Your task to perform on an android device: Is it going to rain today? Image 0: 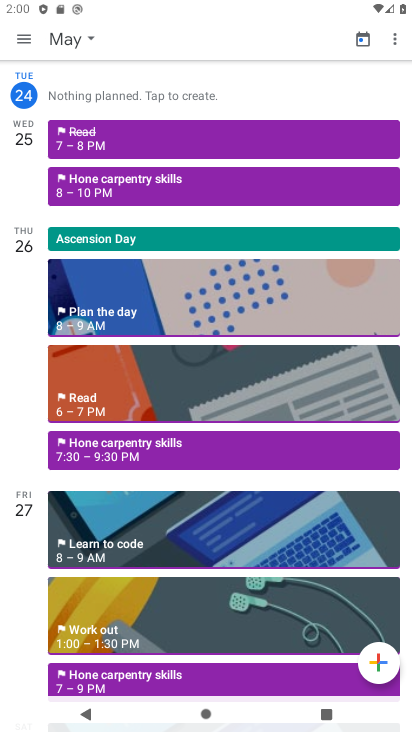
Step 0: press back button
Your task to perform on an android device: Is it going to rain today? Image 1: 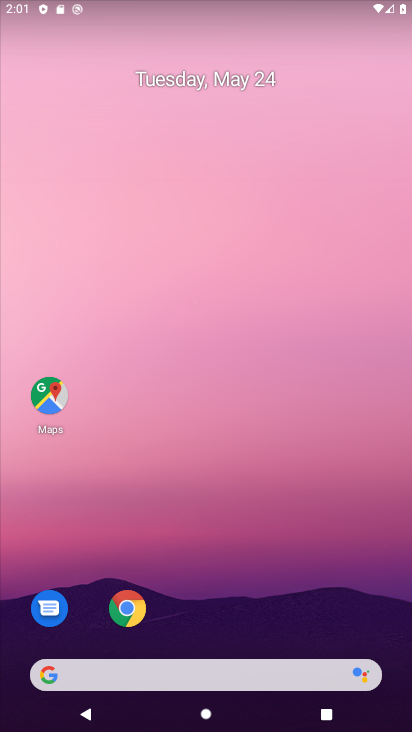
Step 1: drag from (293, 579) to (289, 92)
Your task to perform on an android device: Is it going to rain today? Image 2: 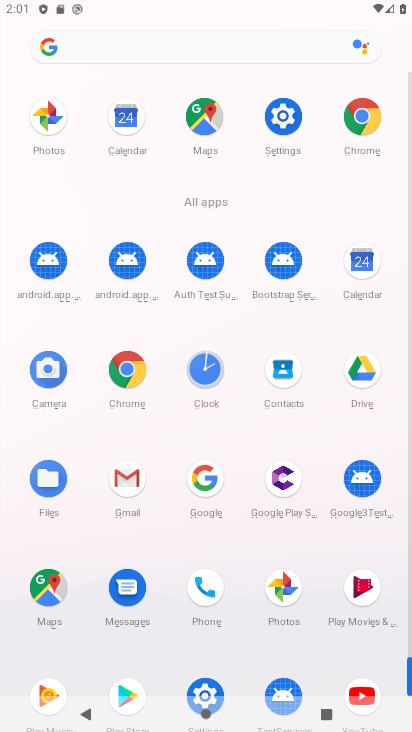
Step 2: drag from (5, 614) to (20, 234)
Your task to perform on an android device: Is it going to rain today? Image 3: 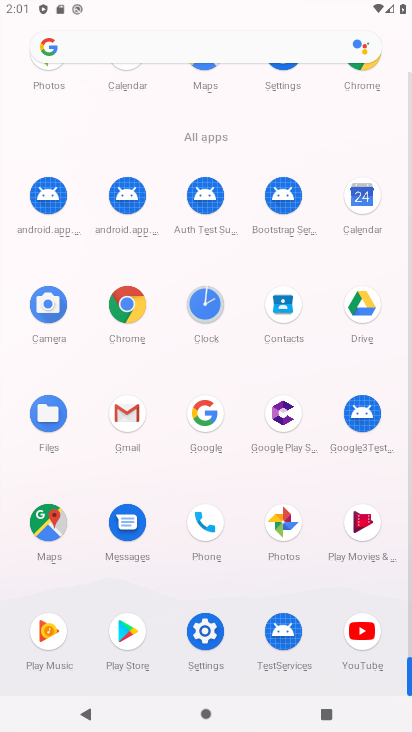
Step 3: drag from (12, 495) to (12, 289)
Your task to perform on an android device: Is it going to rain today? Image 4: 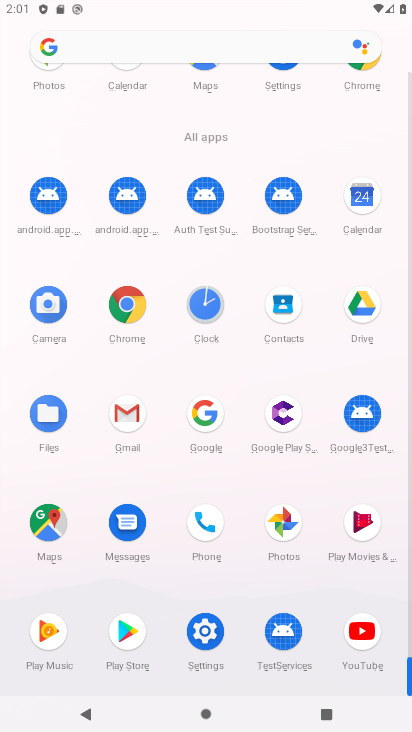
Step 4: click (124, 307)
Your task to perform on an android device: Is it going to rain today? Image 5: 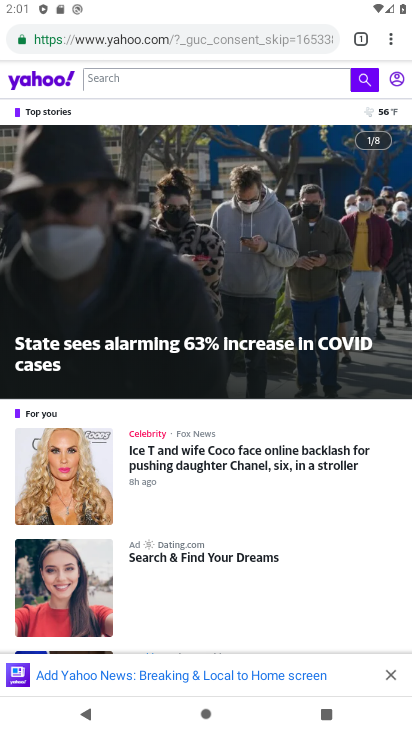
Step 5: click (176, 40)
Your task to perform on an android device: Is it going to rain today? Image 6: 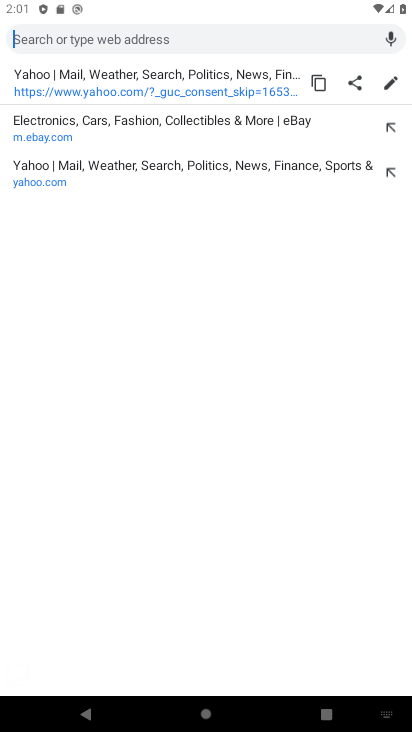
Step 6: type "Is it going to rain today?"
Your task to perform on an android device: Is it going to rain today? Image 7: 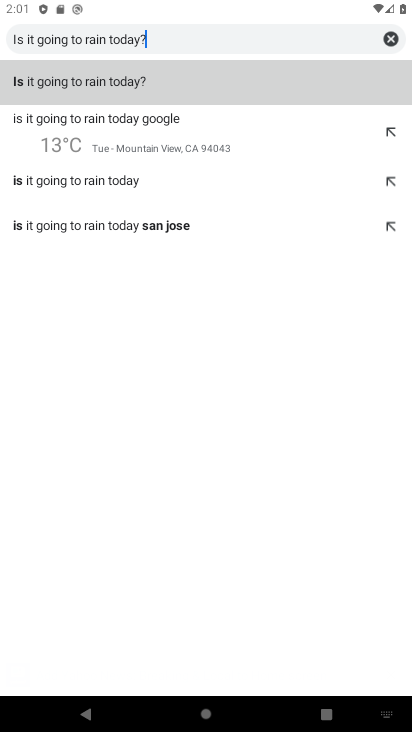
Step 7: type ""
Your task to perform on an android device: Is it going to rain today? Image 8: 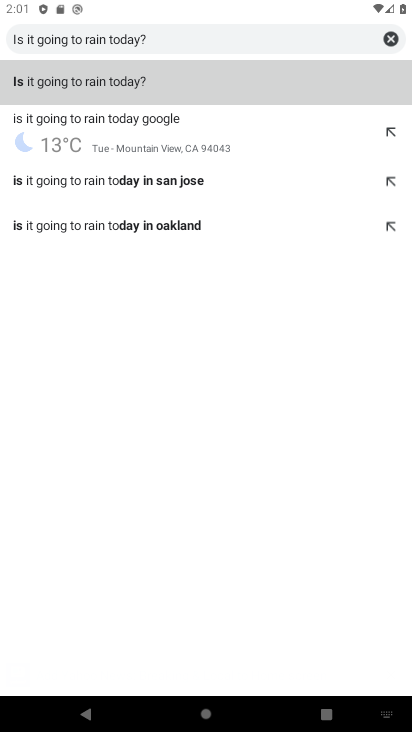
Step 8: click (129, 133)
Your task to perform on an android device: Is it going to rain today? Image 9: 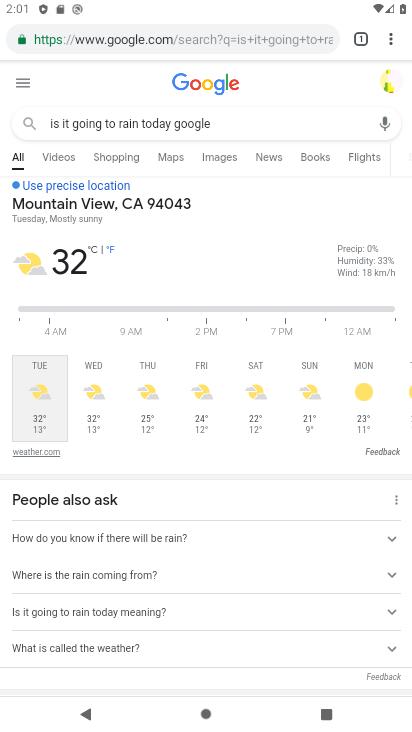
Step 9: task complete